Your task to perform on an android device: open app "Nova Launcher" (install if not already installed), go to login, and select forgot password Image 0: 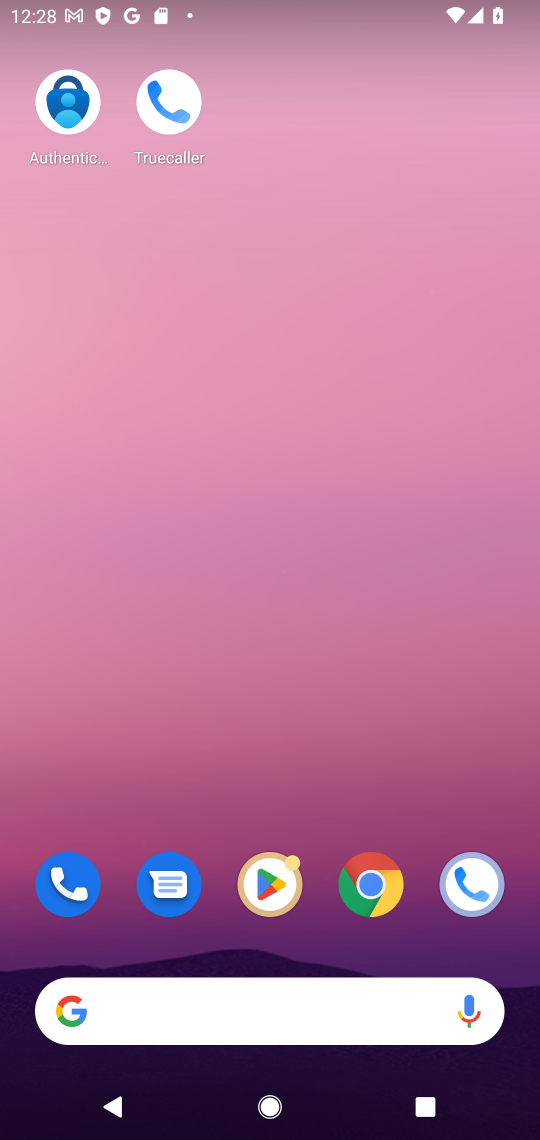
Step 0: press home button
Your task to perform on an android device: open app "Nova Launcher" (install if not already installed), go to login, and select forgot password Image 1: 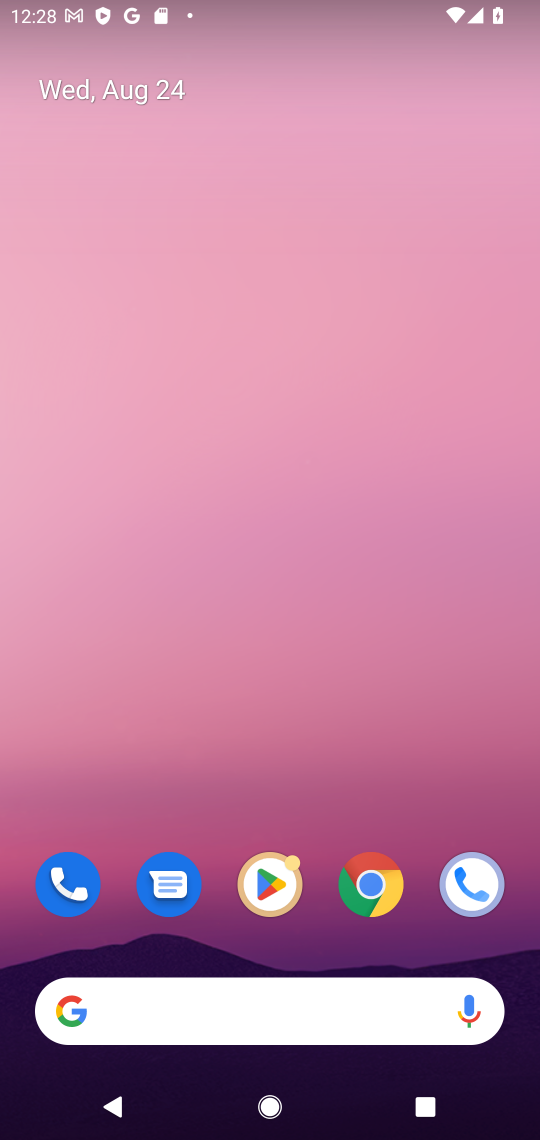
Step 1: drag from (262, 1012) to (341, 96)
Your task to perform on an android device: open app "Nova Launcher" (install if not already installed), go to login, and select forgot password Image 2: 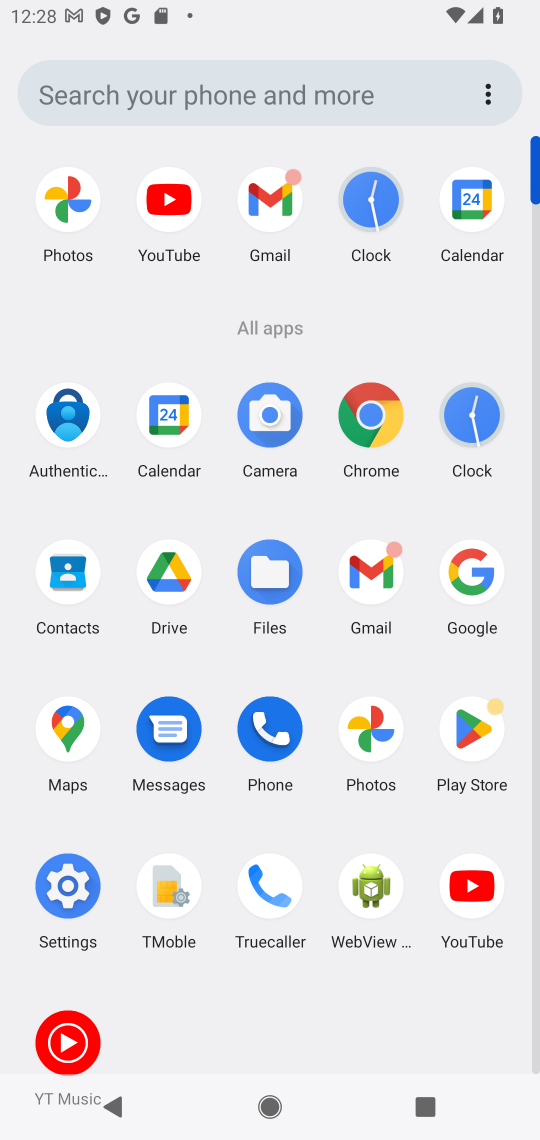
Step 2: click (478, 737)
Your task to perform on an android device: open app "Nova Launcher" (install if not already installed), go to login, and select forgot password Image 3: 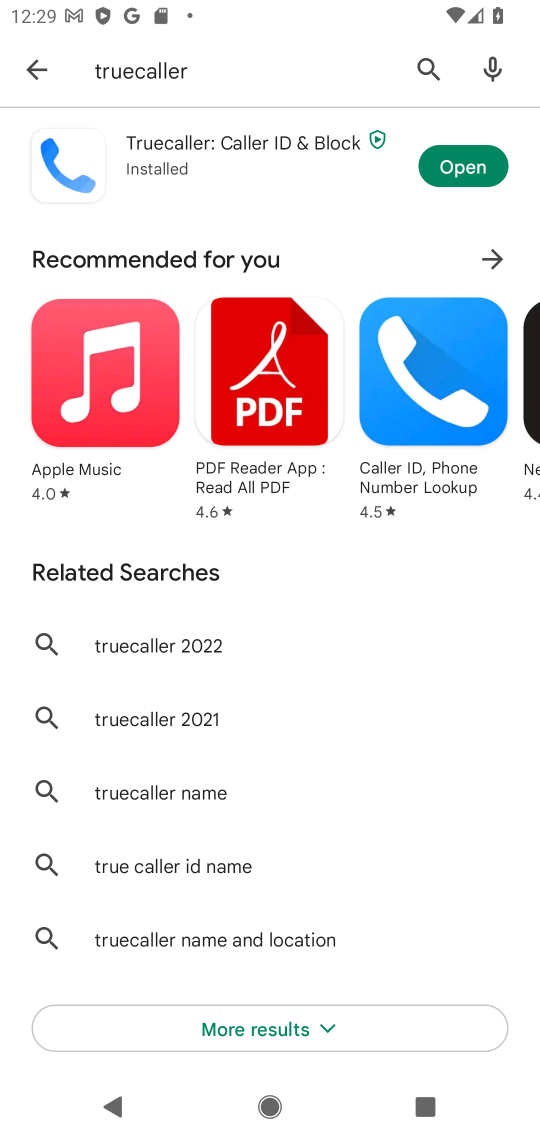
Step 3: press back button
Your task to perform on an android device: open app "Nova Launcher" (install if not already installed), go to login, and select forgot password Image 4: 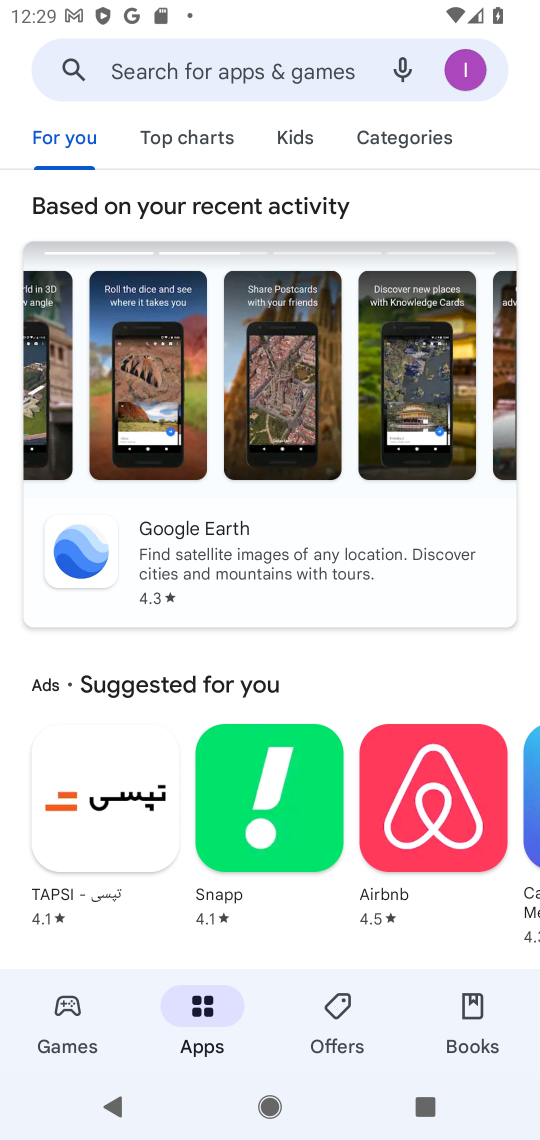
Step 4: click (237, 67)
Your task to perform on an android device: open app "Nova Launcher" (install if not already installed), go to login, and select forgot password Image 5: 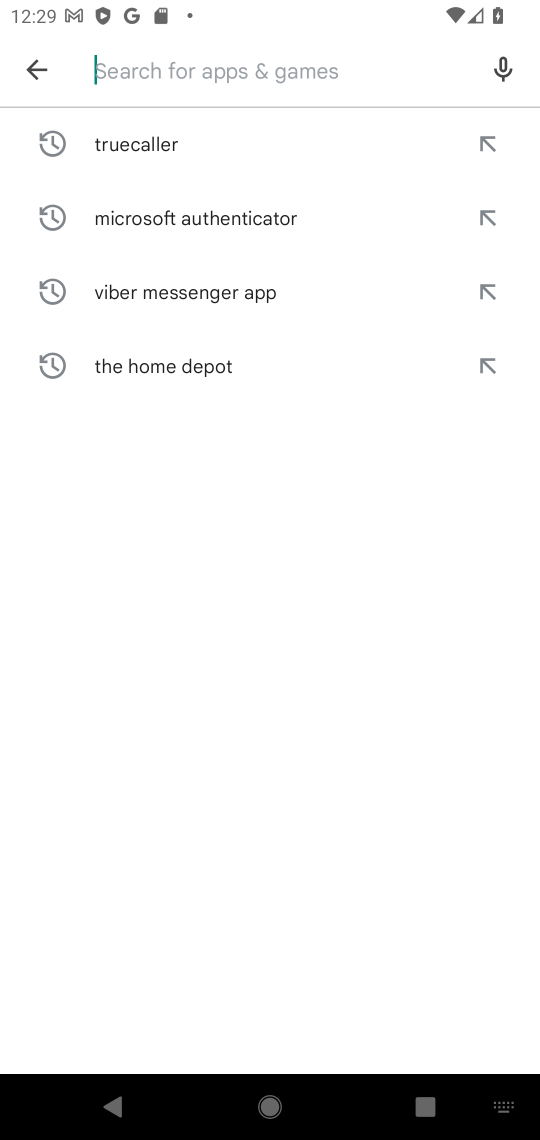
Step 5: type "Nova Launcher"
Your task to perform on an android device: open app "Nova Launcher" (install if not already installed), go to login, and select forgot password Image 6: 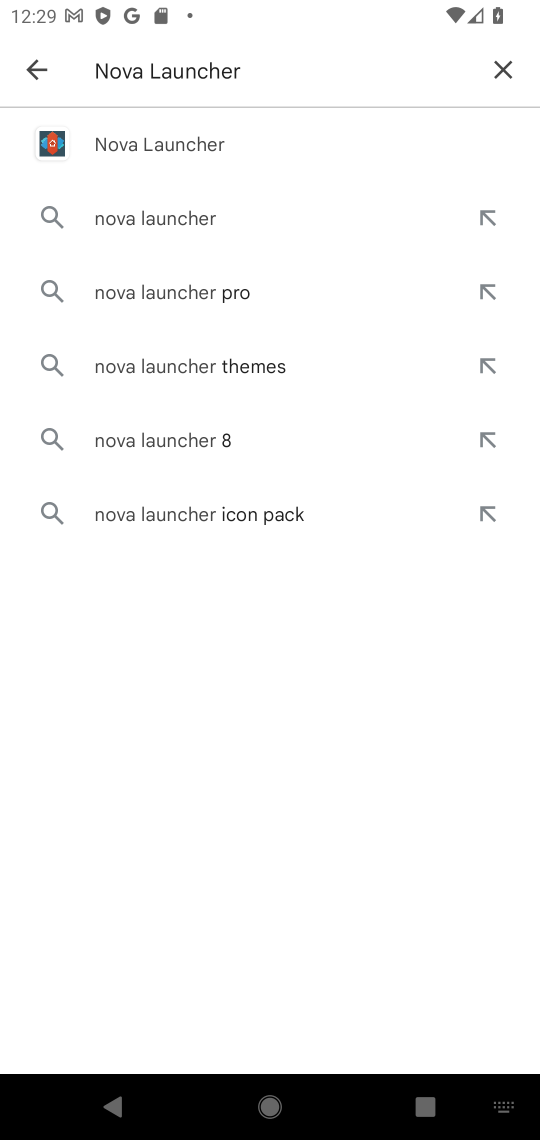
Step 6: click (184, 151)
Your task to perform on an android device: open app "Nova Launcher" (install if not already installed), go to login, and select forgot password Image 7: 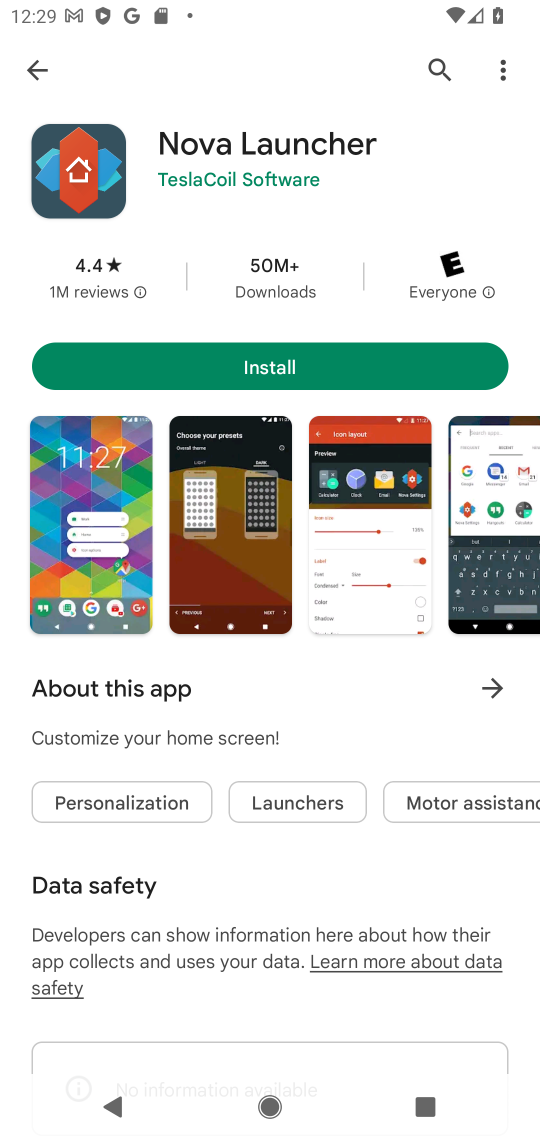
Step 7: click (298, 371)
Your task to perform on an android device: open app "Nova Launcher" (install if not already installed), go to login, and select forgot password Image 8: 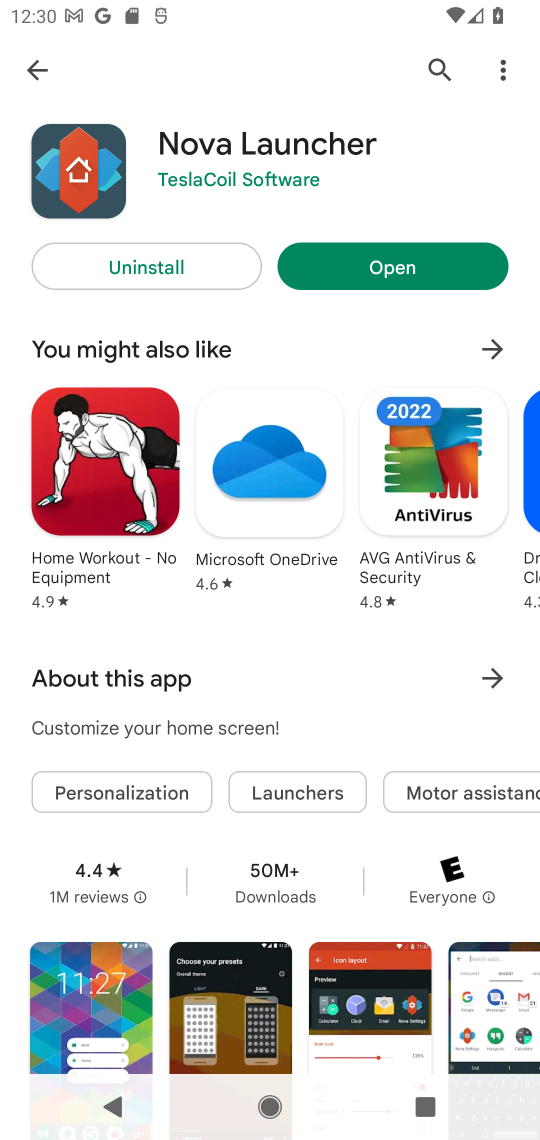
Step 8: click (412, 272)
Your task to perform on an android device: open app "Nova Launcher" (install if not already installed), go to login, and select forgot password Image 9: 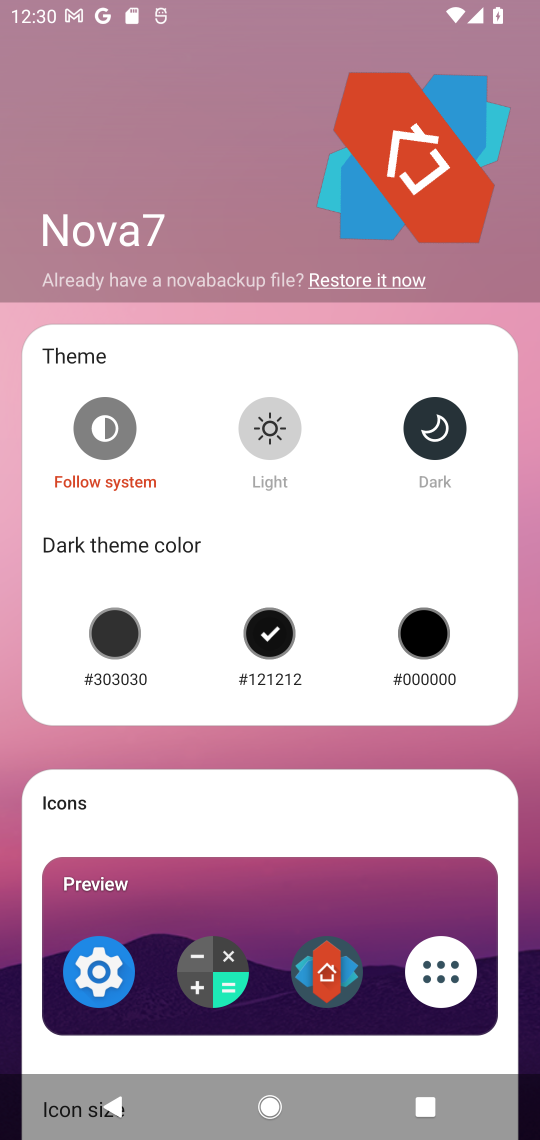
Step 9: click (376, 284)
Your task to perform on an android device: open app "Nova Launcher" (install if not already installed), go to login, and select forgot password Image 10: 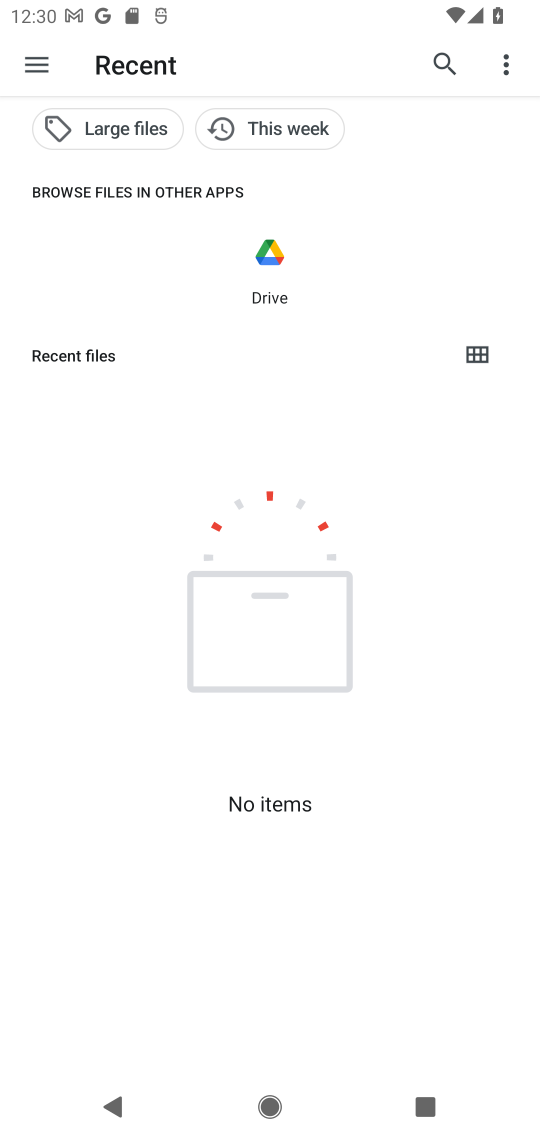
Step 10: task complete